Your task to perform on an android device: turn on showing notifications on the lock screen Image 0: 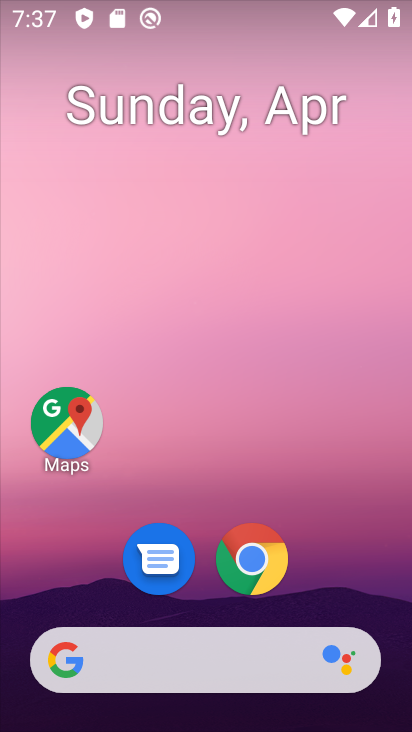
Step 0: drag from (175, 374) to (272, 200)
Your task to perform on an android device: turn on showing notifications on the lock screen Image 1: 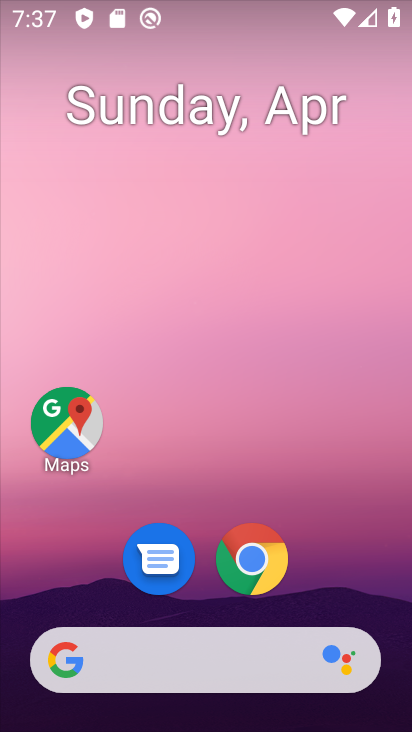
Step 1: drag from (71, 433) to (247, 64)
Your task to perform on an android device: turn on showing notifications on the lock screen Image 2: 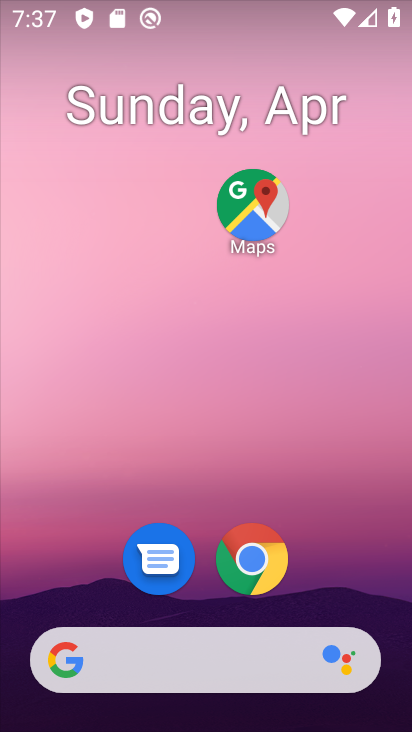
Step 2: drag from (24, 547) to (278, 58)
Your task to perform on an android device: turn on showing notifications on the lock screen Image 3: 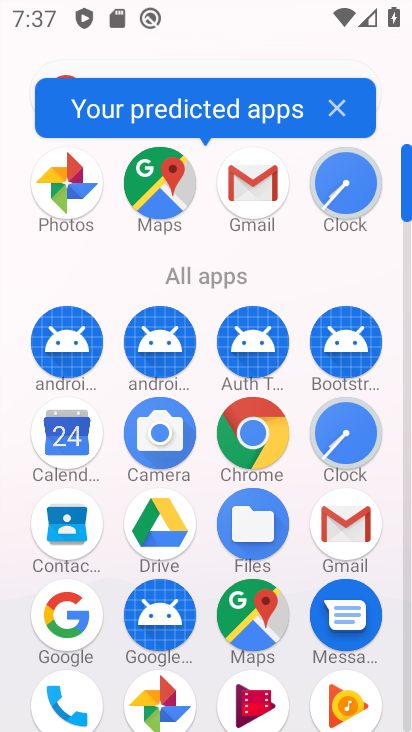
Step 3: drag from (203, 643) to (384, 186)
Your task to perform on an android device: turn on showing notifications on the lock screen Image 4: 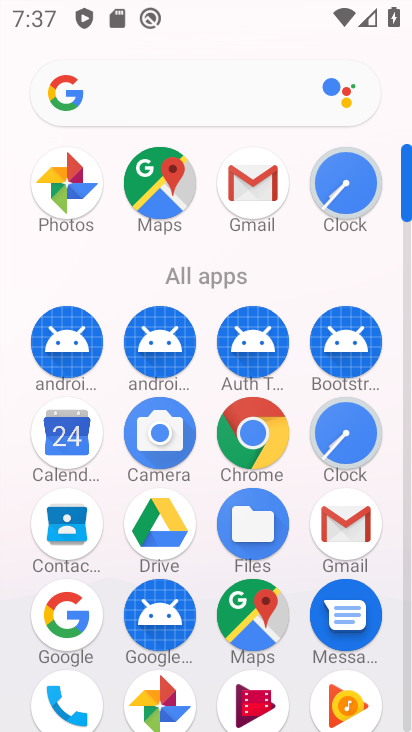
Step 4: drag from (62, 613) to (270, 198)
Your task to perform on an android device: turn on showing notifications on the lock screen Image 5: 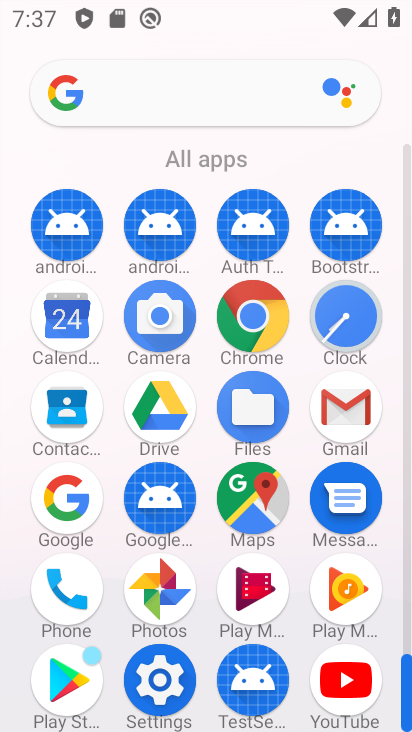
Step 5: click (141, 671)
Your task to perform on an android device: turn on showing notifications on the lock screen Image 6: 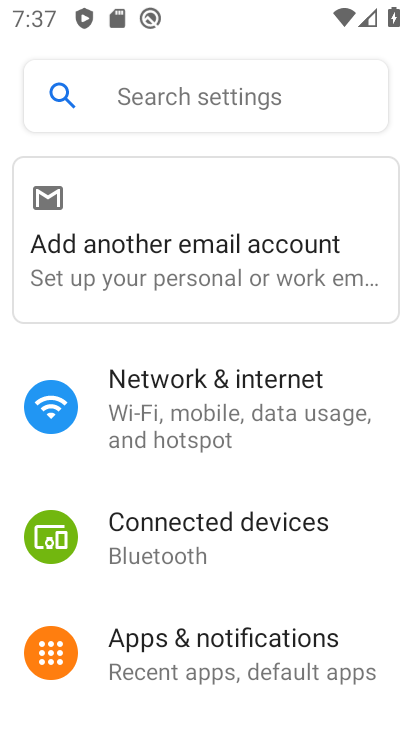
Step 6: click (226, 644)
Your task to perform on an android device: turn on showing notifications on the lock screen Image 7: 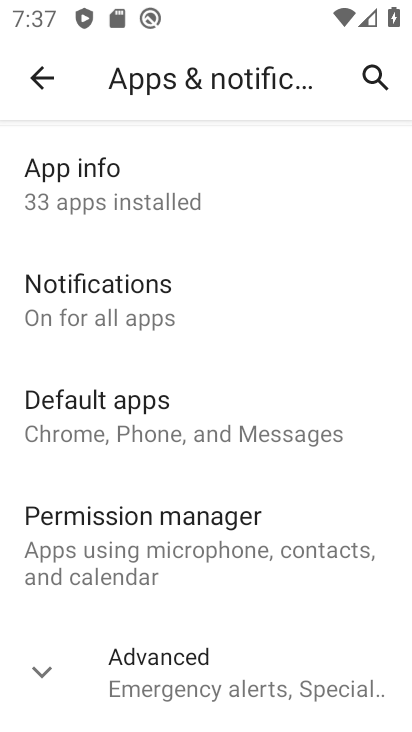
Step 7: drag from (181, 639) to (299, 253)
Your task to perform on an android device: turn on showing notifications on the lock screen Image 8: 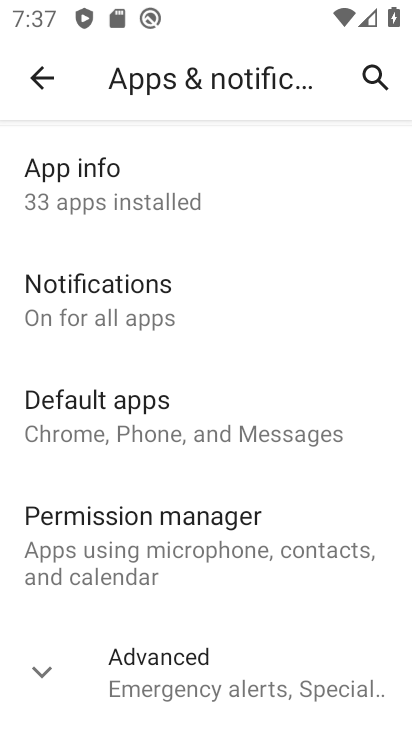
Step 8: drag from (158, 559) to (264, 210)
Your task to perform on an android device: turn on showing notifications on the lock screen Image 9: 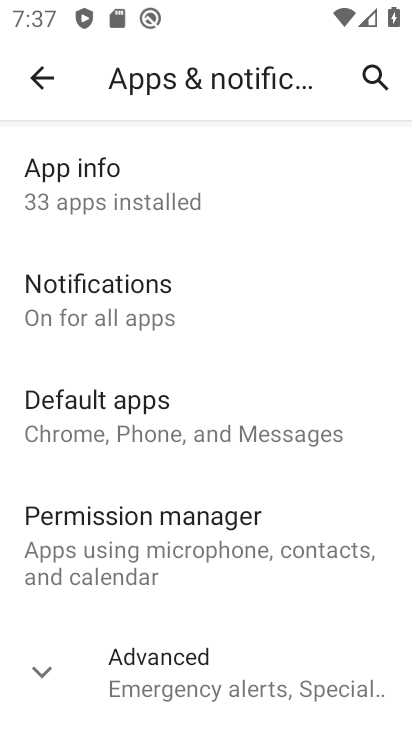
Step 9: click (188, 695)
Your task to perform on an android device: turn on showing notifications on the lock screen Image 10: 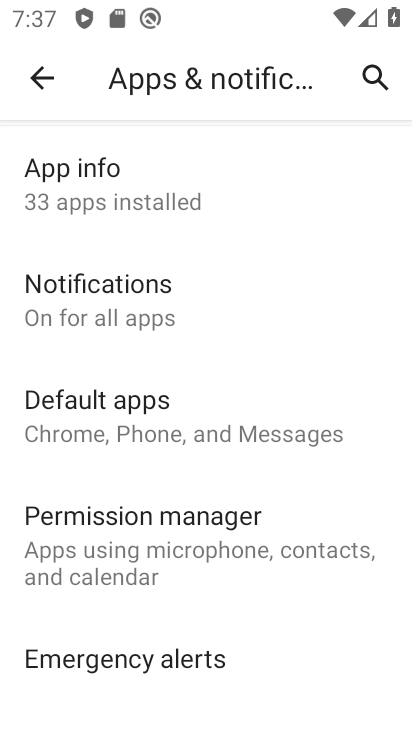
Step 10: click (195, 284)
Your task to perform on an android device: turn on showing notifications on the lock screen Image 11: 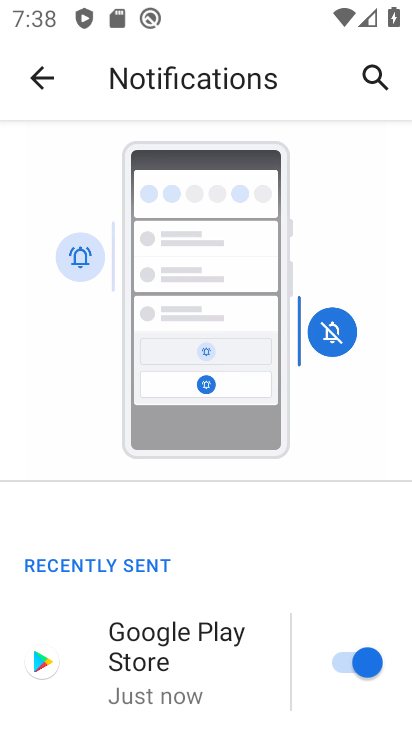
Step 11: drag from (136, 667) to (323, 190)
Your task to perform on an android device: turn on showing notifications on the lock screen Image 12: 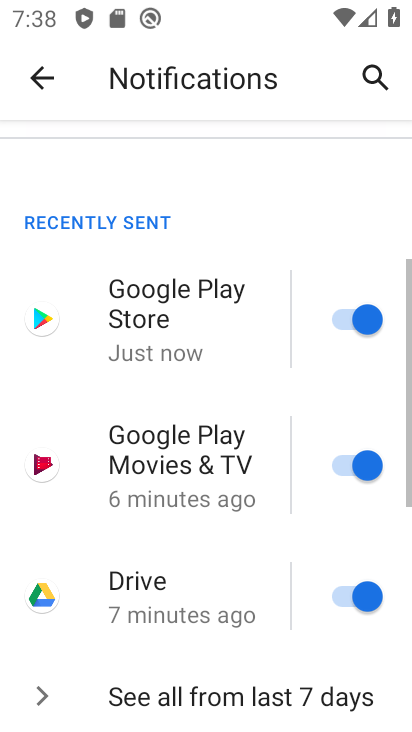
Step 12: drag from (68, 614) to (330, 144)
Your task to perform on an android device: turn on showing notifications on the lock screen Image 13: 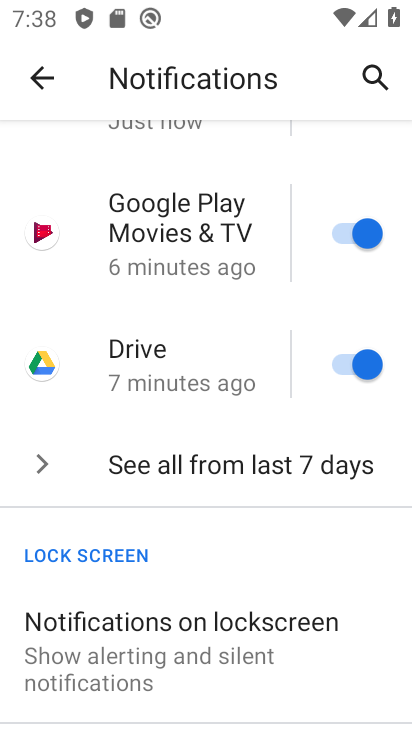
Step 13: click (127, 637)
Your task to perform on an android device: turn on showing notifications on the lock screen Image 14: 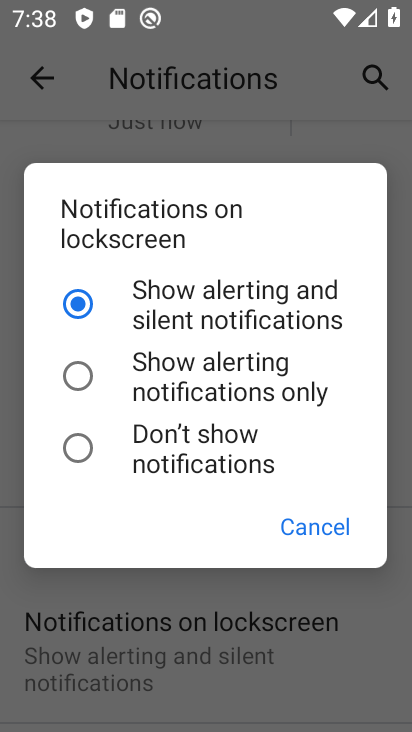
Step 14: task complete